Your task to perform on an android device: Open Google Chrome Image 0: 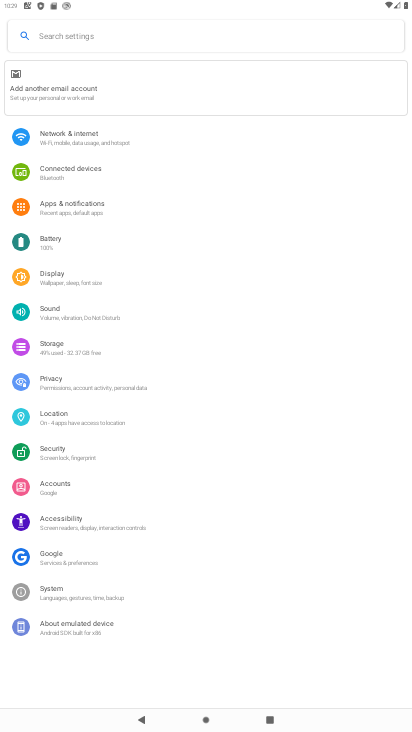
Step 0: task complete